Your task to perform on an android device: Go to Google maps Image 0: 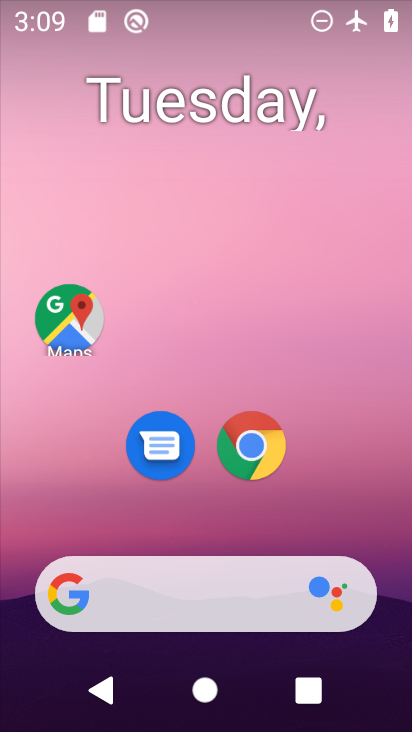
Step 0: click (61, 315)
Your task to perform on an android device: Go to Google maps Image 1: 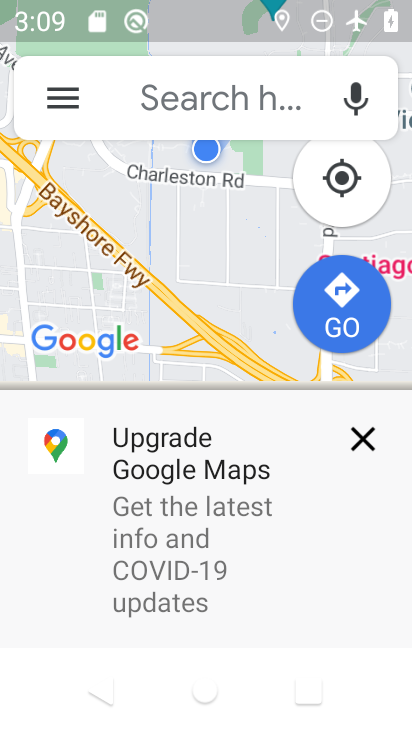
Step 1: task complete